Your task to perform on an android device: turn on bluetooth scan Image 0: 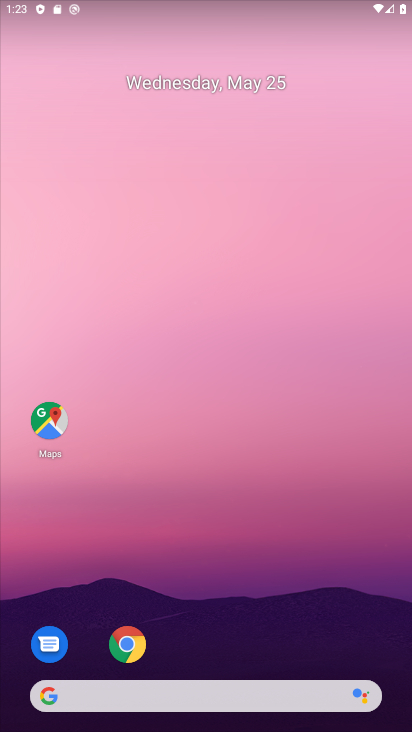
Step 0: drag from (195, 654) to (192, 176)
Your task to perform on an android device: turn on bluetooth scan Image 1: 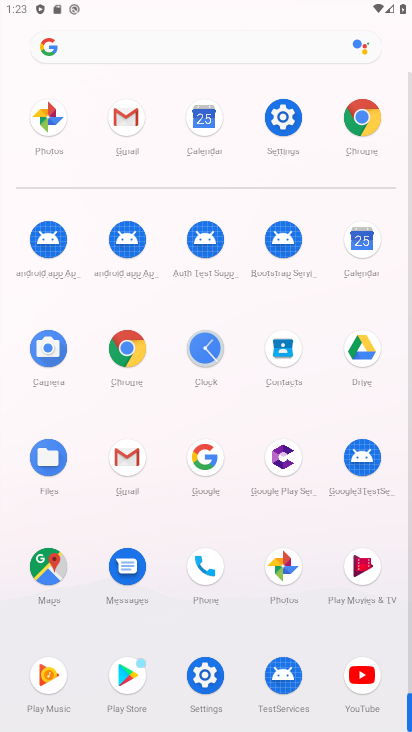
Step 1: click (290, 123)
Your task to perform on an android device: turn on bluetooth scan Image 2: 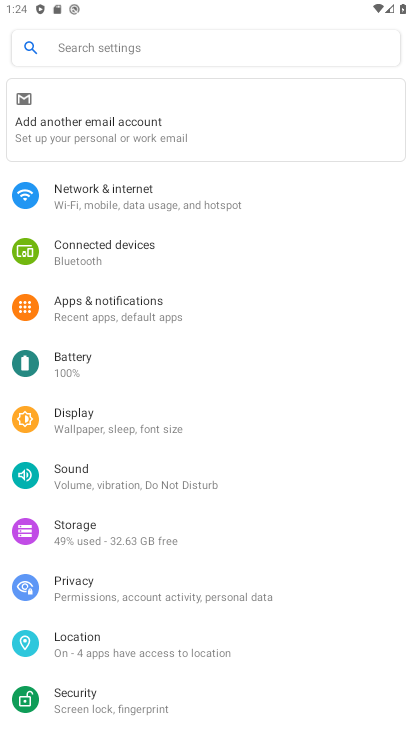
Step 2: click (80, 647)
Your task to perform on an android device: turn on bluetooth scan Image 3: 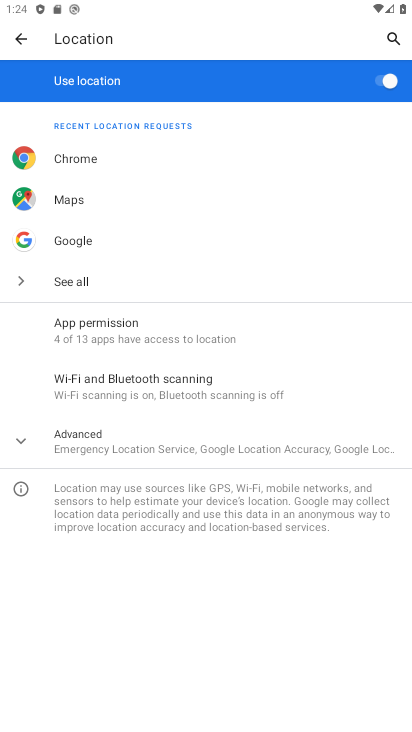
Step 3: click (100, 447)
Your task to perform on an android device: turn on bluetooth scan Image 4: 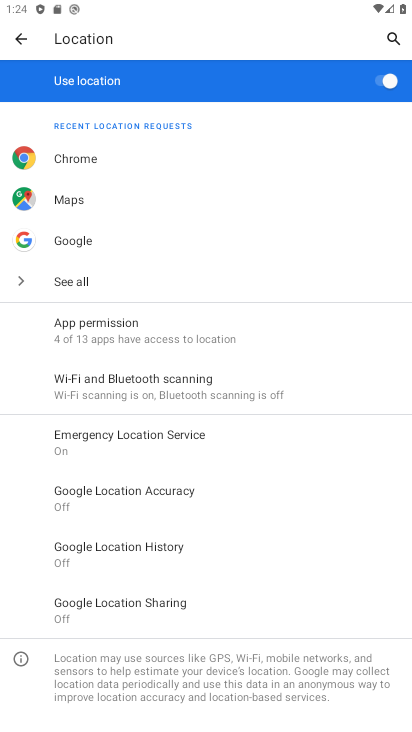
Step 4: click (113, 386)
Your task to perform on an android device: turn on bluetooth scan Image 5: 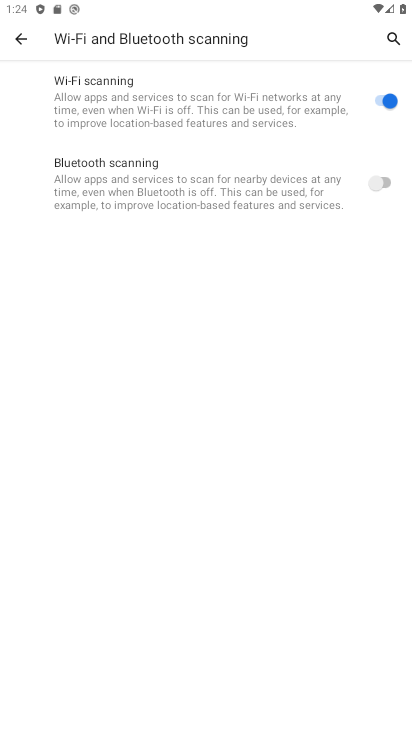
Step 5: click (391, 185)
Your task to perform on an android device: turn on bluetooth scan Image 6: 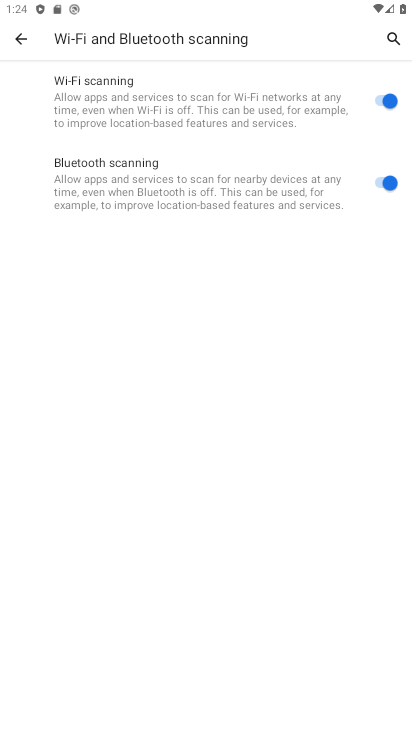
Step 6: task complete